Your task to perform on an android device: Check the weather Image 0: 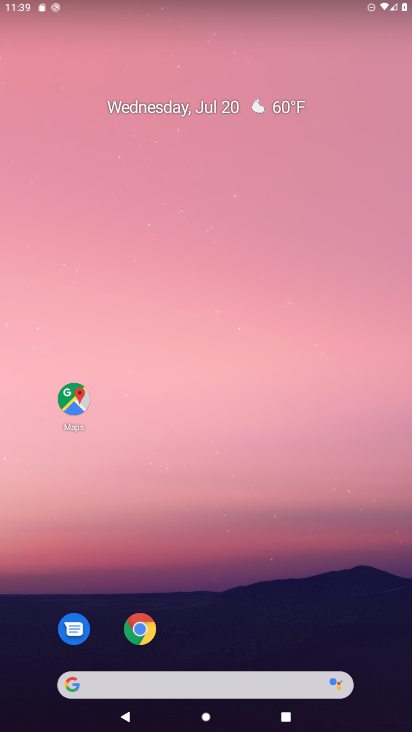
Step 0: drag from (222, 620) to (221, 282)
Your task to perform on an android device: Check the weather Image 1: 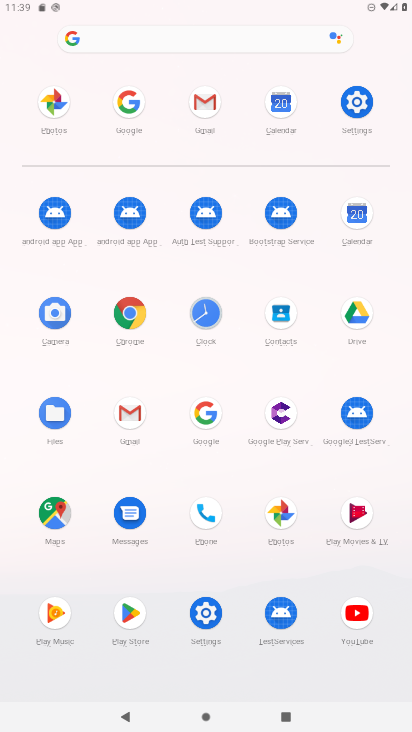
Step 1: click (206, 428)
Your task to perform on an android device: Check the weather Image 2: 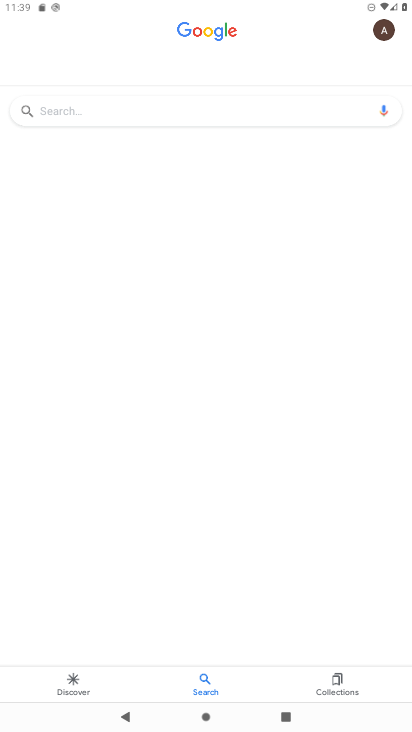
Step 2: drag from (145, 111) to (95, 111)
Your task to perform on an android device: Check the weather Image 3: 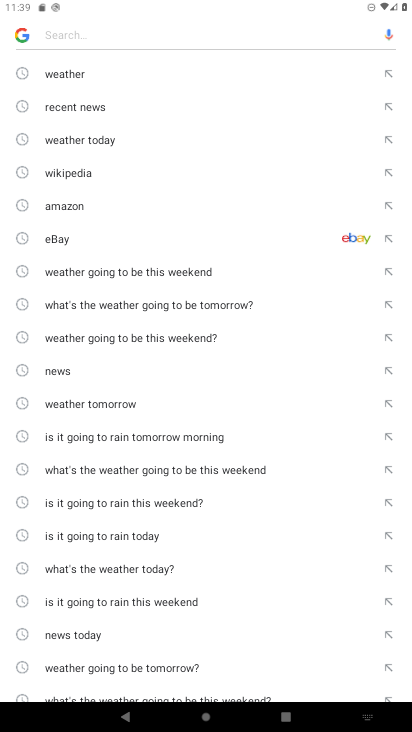
Step 3: click (116, 76)
Your task to perform on an android device: Check the weather Image 4: 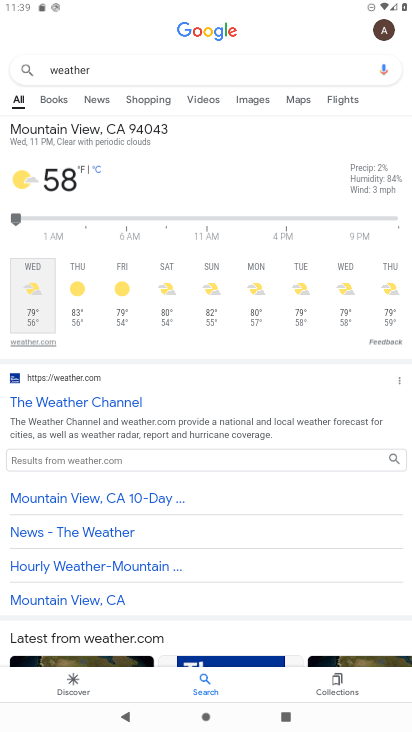
Step 4: task complete